Your task to perform on an android device: Open calendar and show me the second week of next month Image 0: 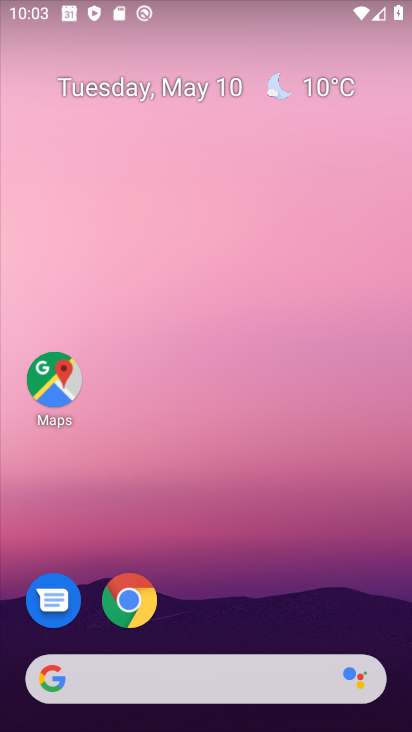
Step 0: drag from (287, 572) to (314, 8)
Your task to perform on an android device: Open calendar and show me the second week of next month Image 1: 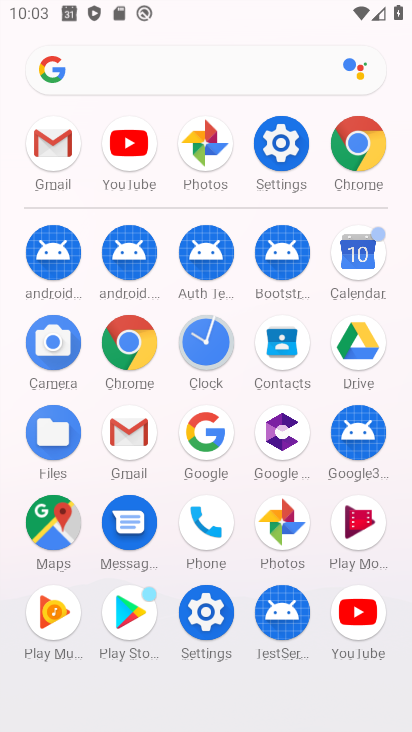
Step 1: click (363, 252)
Your task to perform on an android device: Open calendar and show me the second week of next month Image 2: 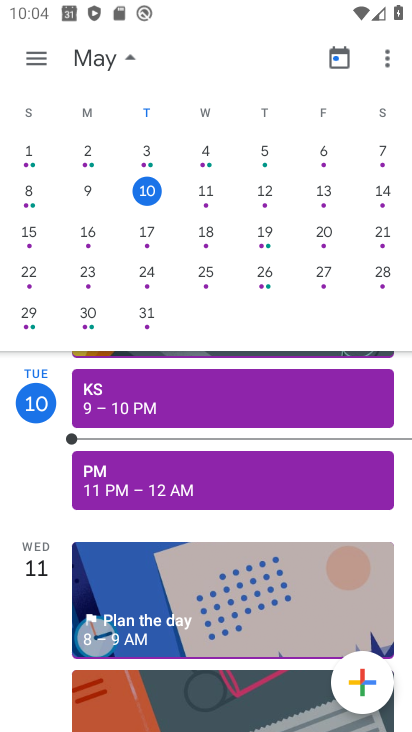
Step 2: drag from (327, 218) to (4, 222)
Your task to perform on an android device: Open calendar and show me the second week of next month Image 3: 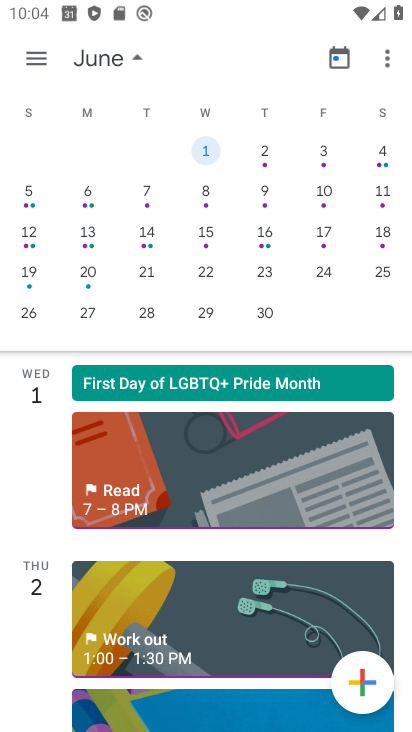
Step 3: click (143, 227)
Your task to perform on an android device: Open calendar and show me the second week of next month Image 4: 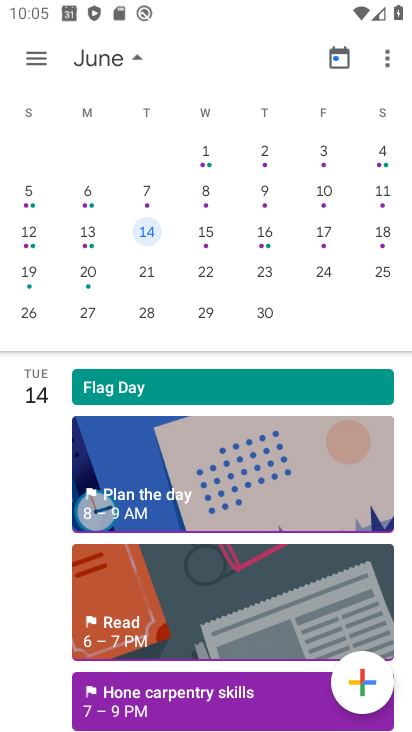
Step 4: task complete